Your task to perform on an android device: Search for a runner rug on Crate & Barrel Image 0: 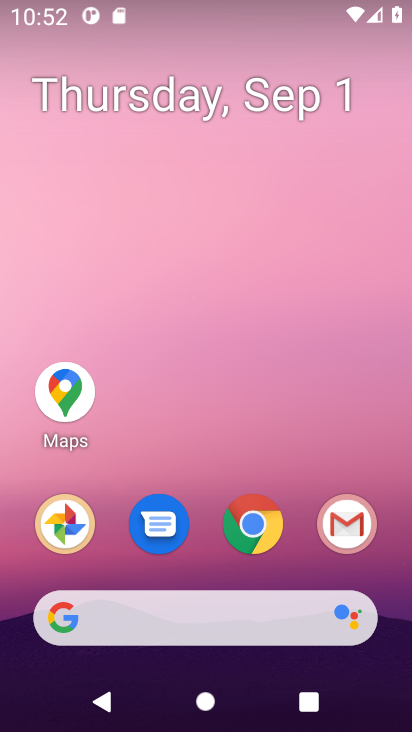
Step 0: drag from (393, 456) to (370, 70)
Your task to perform on an android device: Search for a runner rug on Crate & Barrel Image 1: 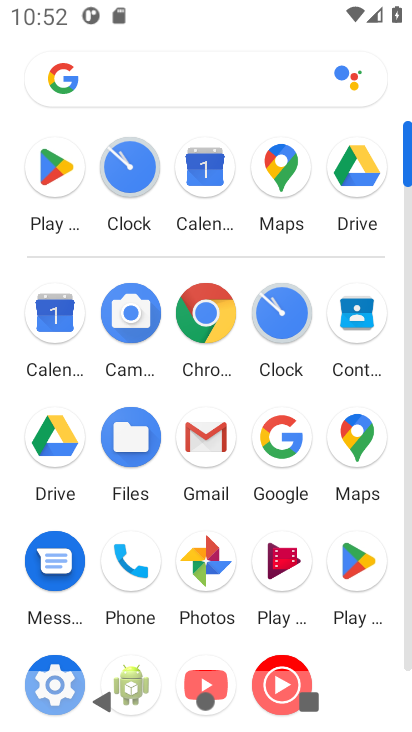
Step 1: click (208, 317)
Your task to perform on an android device: Search for a runner rug on Crate & Barrel Image 2: 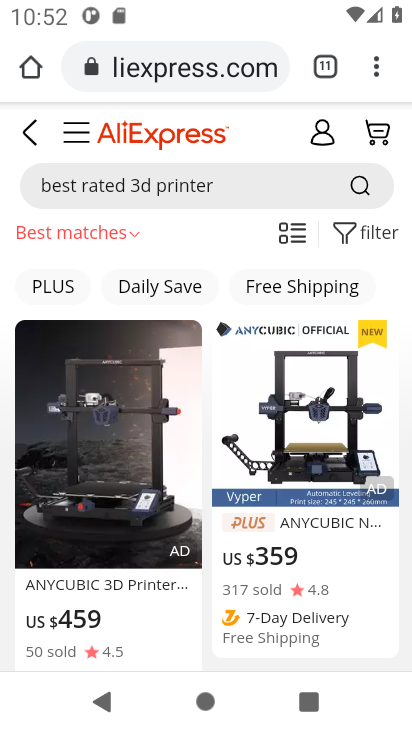
Step 2: click (204, 66)
Your task to perform on an android device: Search for a runner rug on Crate & Barrel Image 3: 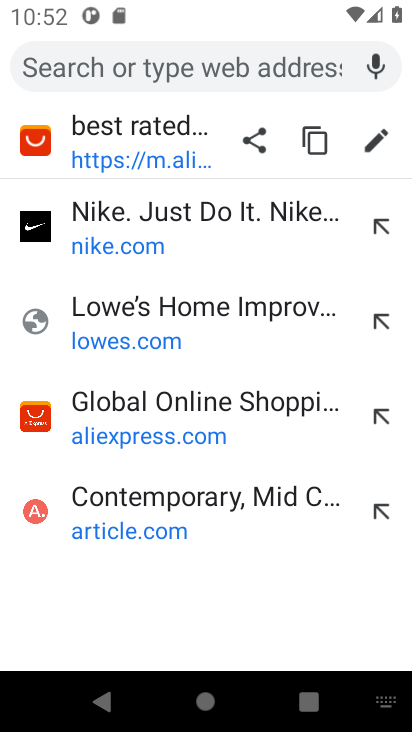
Step 3: type "crate barrel"
Your task to perform on an android device: Search for a runner rug on Crate & Barrel Image 4: 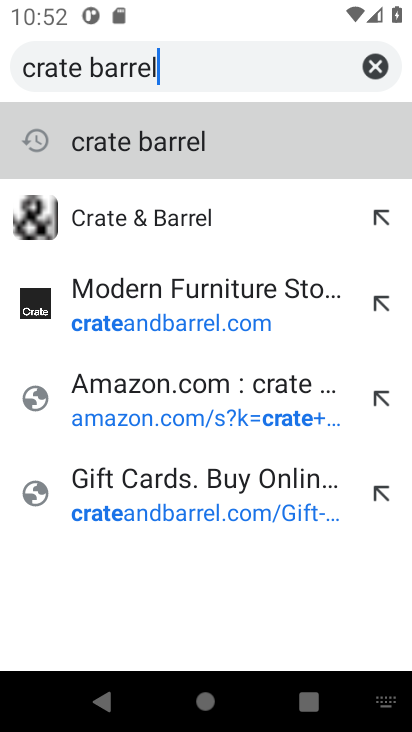
Step 4: click (178, 137)
Your task to perform on an android device: Search for a runner rug on Crate & Barrel Image 5: 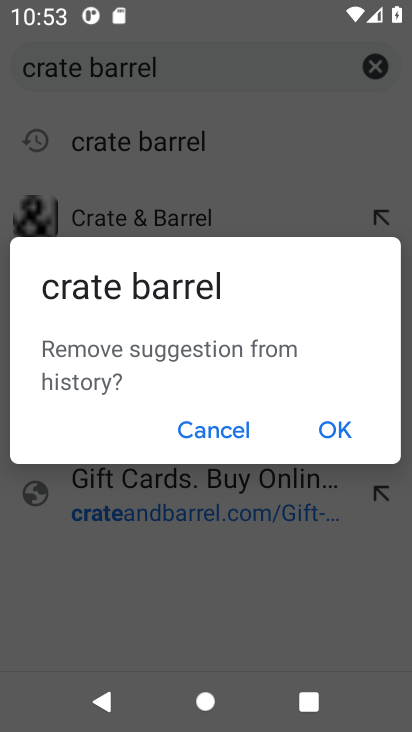
Step 5: click (244, 427)
Your task to perform on an android device: Search for a runner rug on Crate & Barrel Image 6: 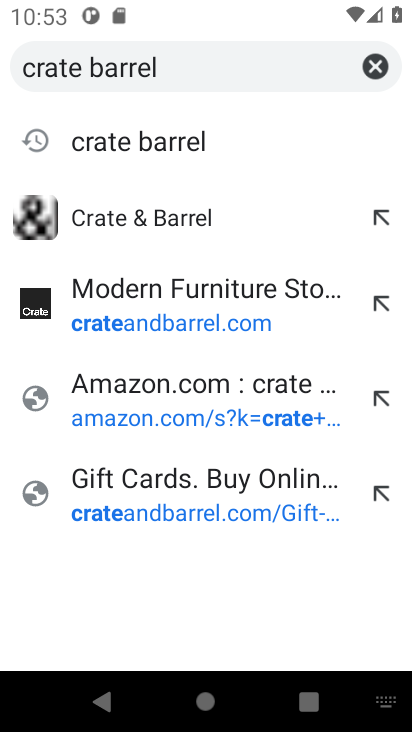
Step 6: click (192, 139)
Your task to perform on an android device: Search for a runner rug on Crate & Barrel Image 7: 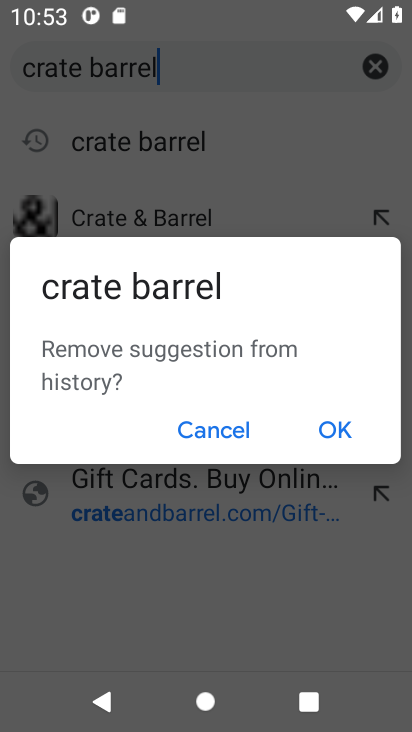
Step 7: click (198, 432)
Your task to perform on an android device: Search for a runner rug on Crate & Barrel Image 8: 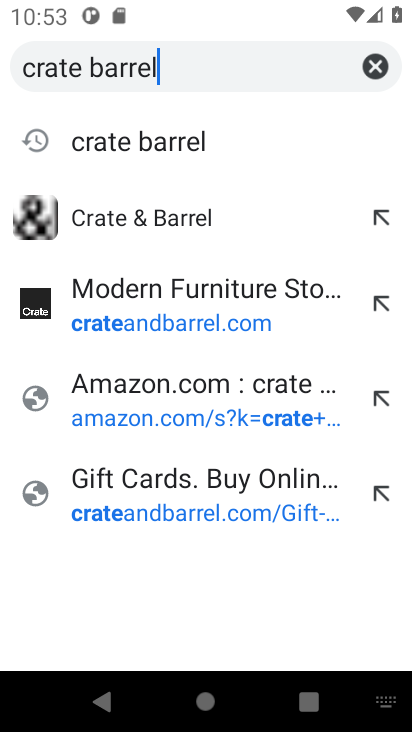
Step 8: click (149, 137)
Your task to perform on an android device: Search for a runner rug on Crate & Barrel Image 9: 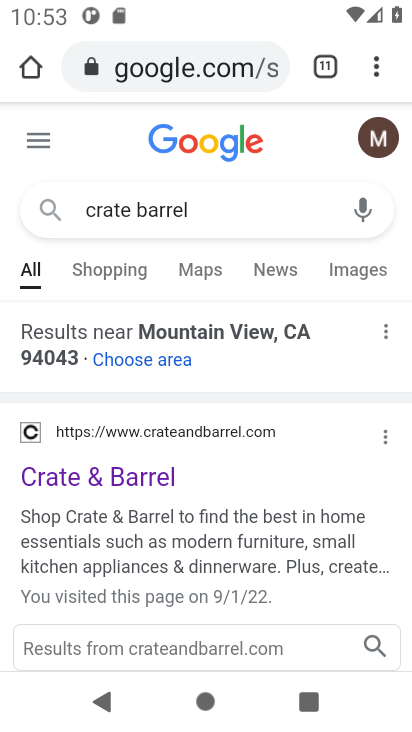
Step 9: click (87, 477)
Your task to perform on an android device: Search for a runner rug on Crate & Barrel Image 10: 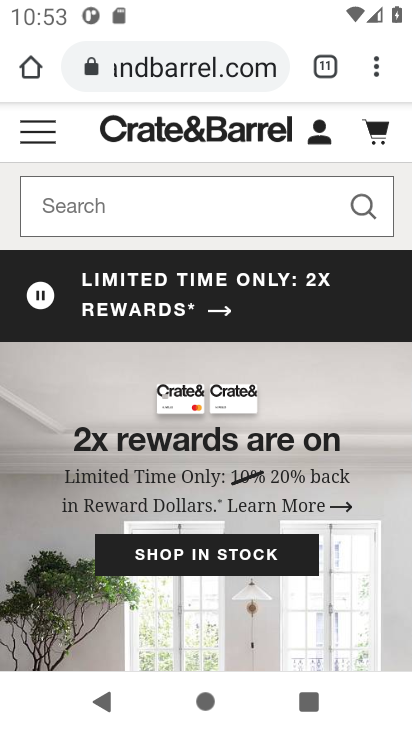
Step 10: click (217, 201)
Your task to perform on an android device: Search for a runner rug on Crate & Barrel Image 11: 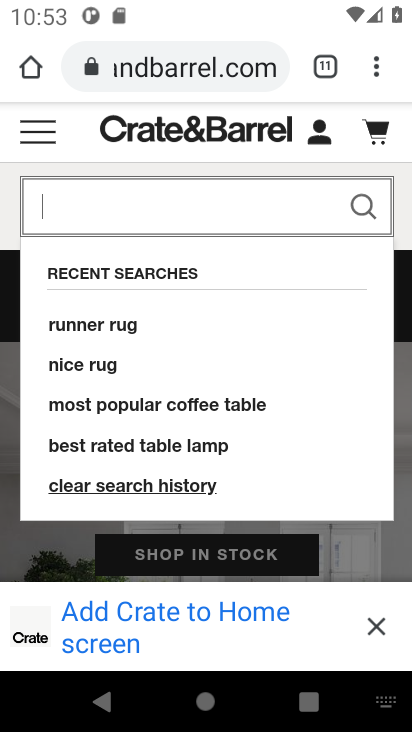
Step 11: click (110, 323)
Your task to perform on an android device: Search for a runner rug on Crate & Barrel Image 12: 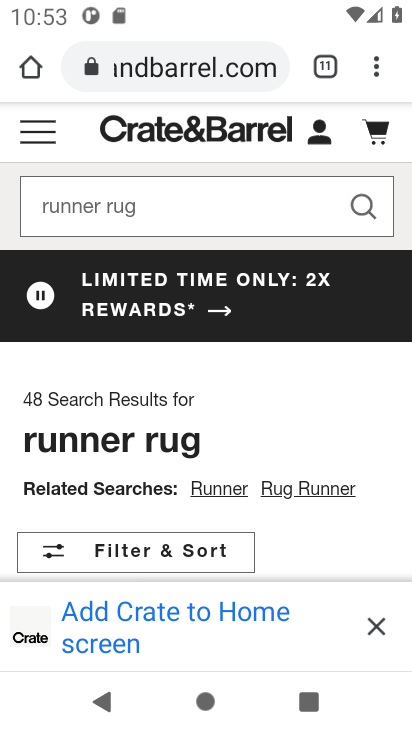
Step 12: click (374, 626)
Your task to perform on an android device: Search for a runner rug on Crate & Barrel Image 13: 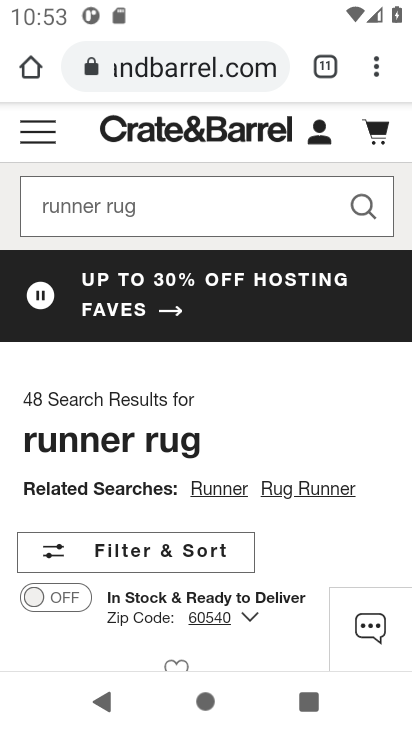
Step 13: task complete